Your task to perform on an android device: Go to Google Image 0: 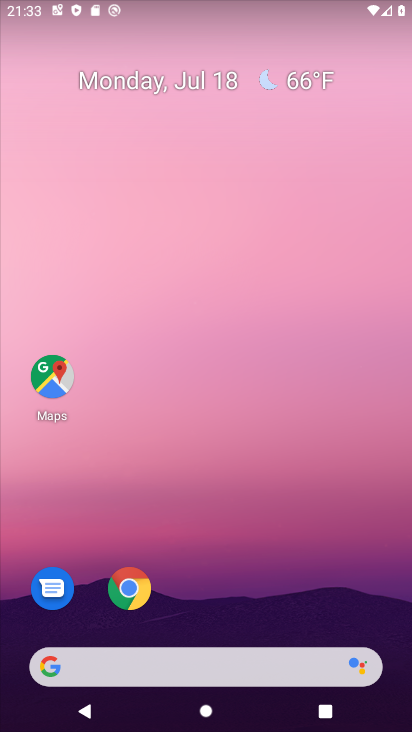
Step 0: press home button
Your task to perform on an android device: Go to Google Image 1: 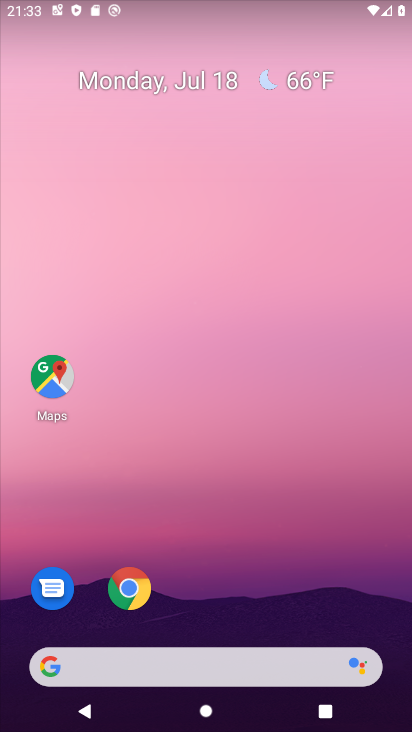
Step 1: drag from (185, 616) to (309, 192)
Your task to perform on an android device: Go to Google Image 2: 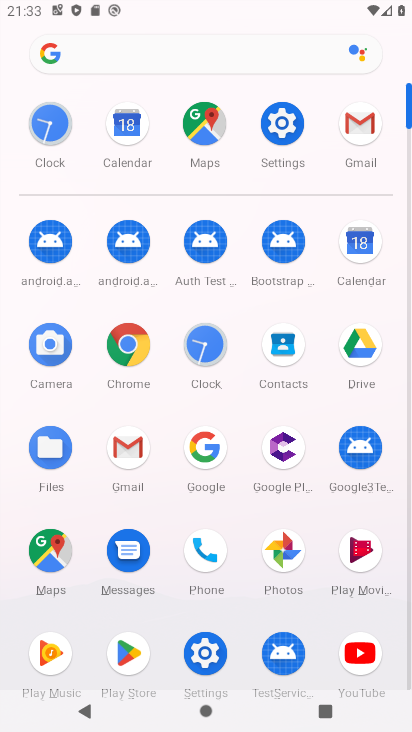
Step 2: click (204, 455)
Your task to perform on an android device: Go to Google Image 3: 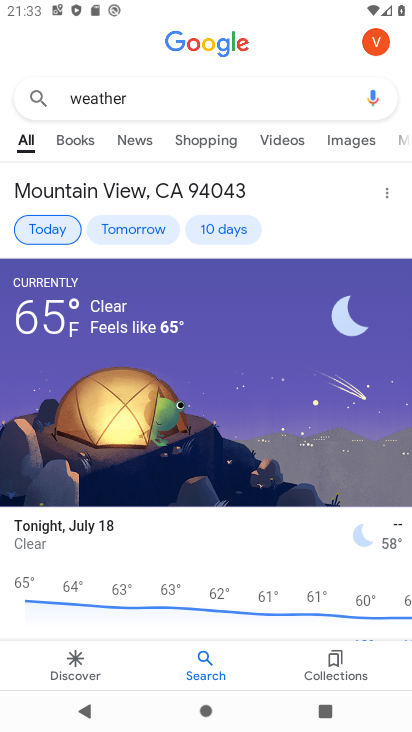
Step 3: task complete